Your task to perform on an android device: turn off smart reply in the gmail app Image 0: 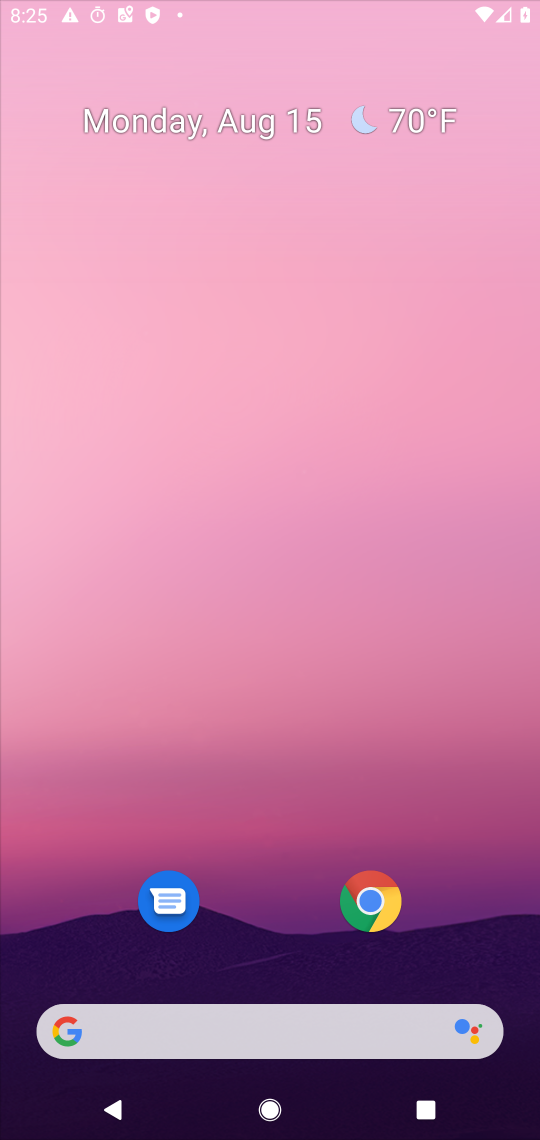
Step 0: click (255, 37)
Your task to perform on an android device: turn off smart reply in the gmail app Image 1: 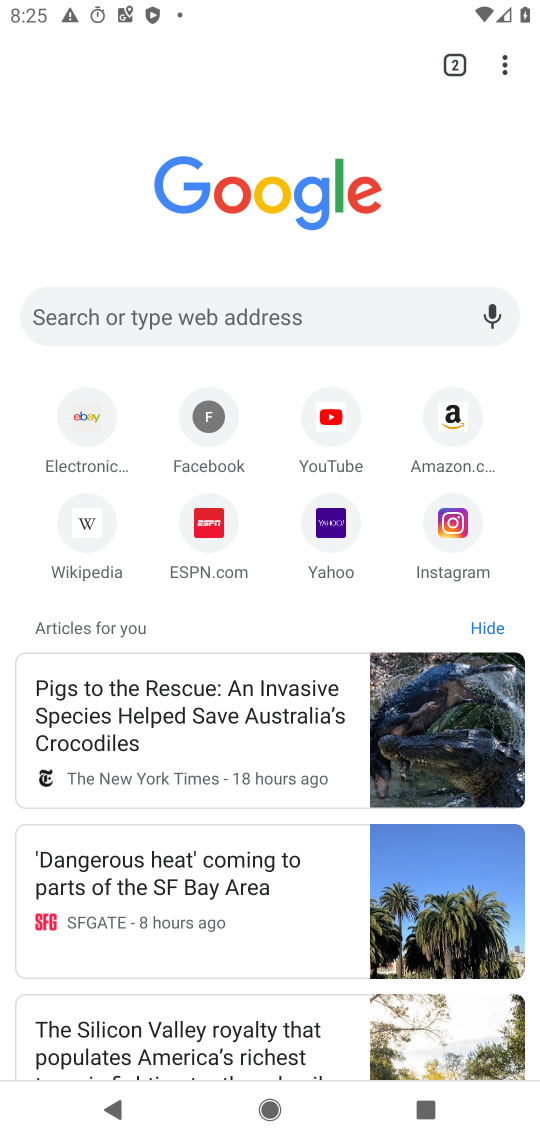
Step 1: press home button
Your task to perform on an android device: turn off smart reply in the gmail app Image 2: 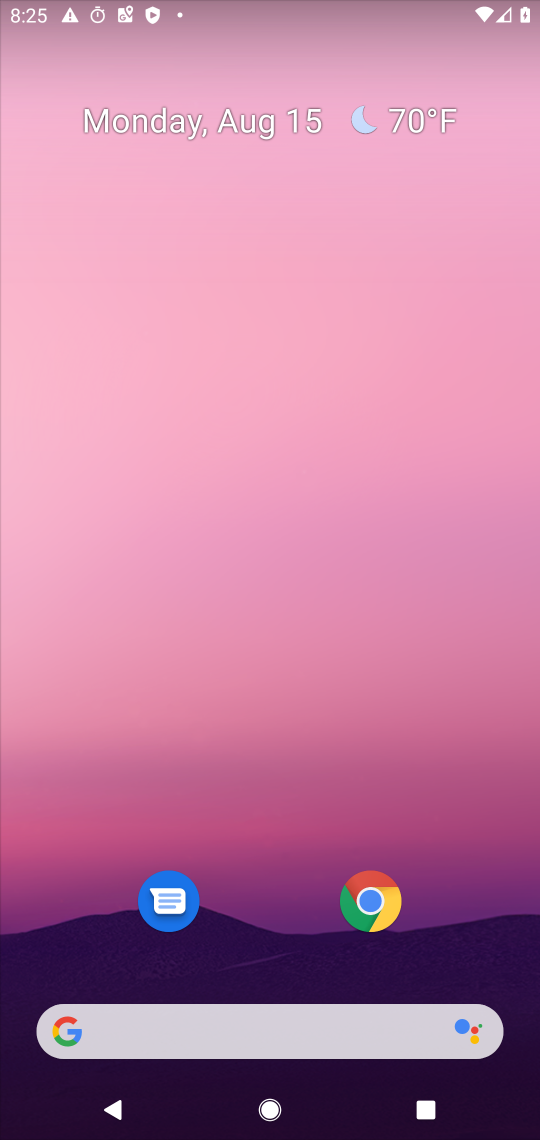
Step 2: drag from (244, 554) to (279, 92)
Your task to perform on an android device: turn off smart reply in the gmail app Image 3: 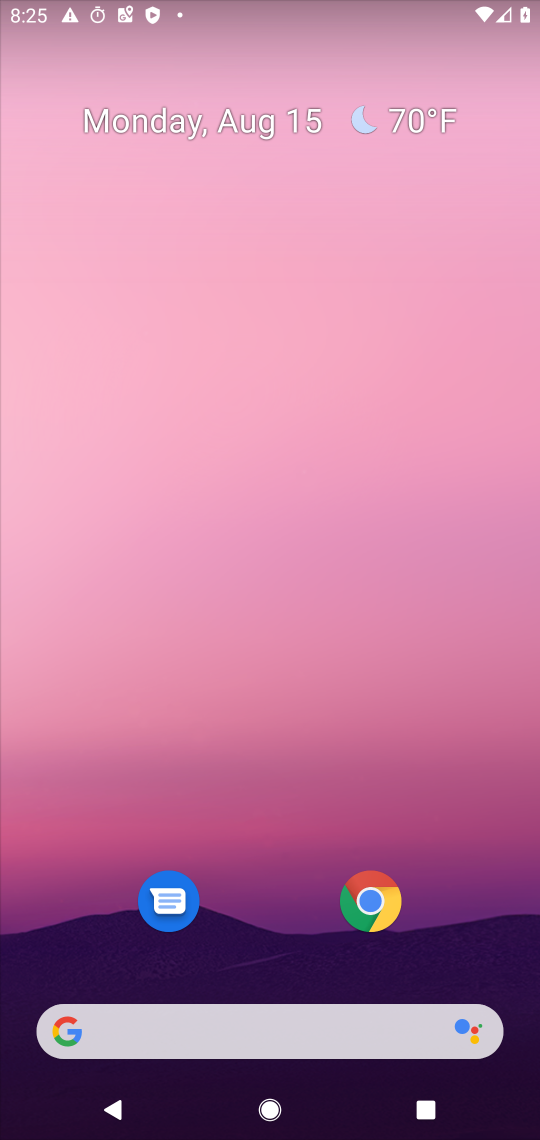
Step 3: drag from (256, 775) to (341, 58)
Your task to perform on an android device: turn off smart reply in the gmail app Image 4: 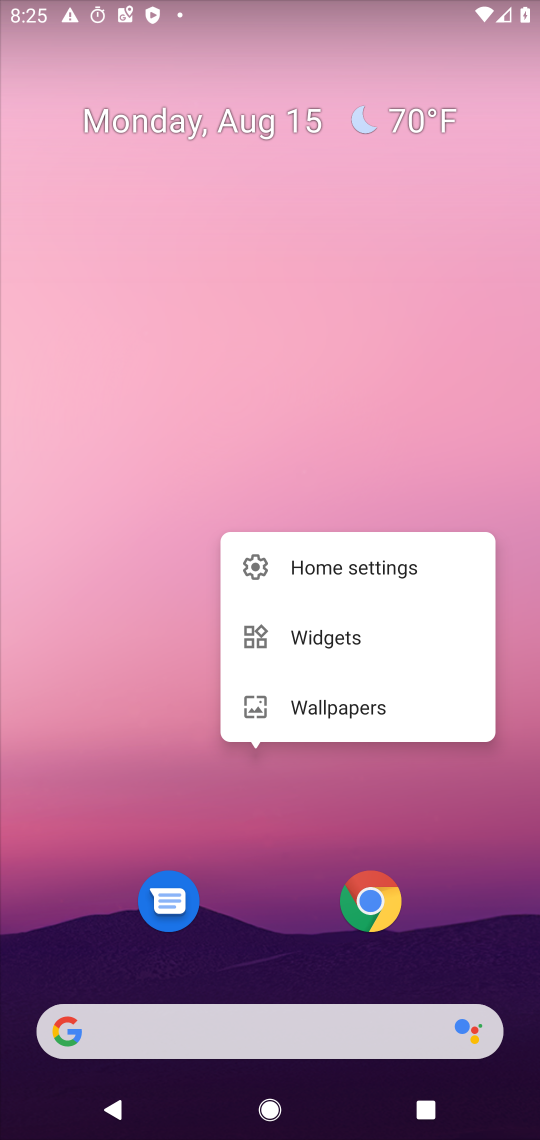
Step 4: click (261, 932)
Your task to perform on an android device: turn off smart reply in the gmail app Image 5: 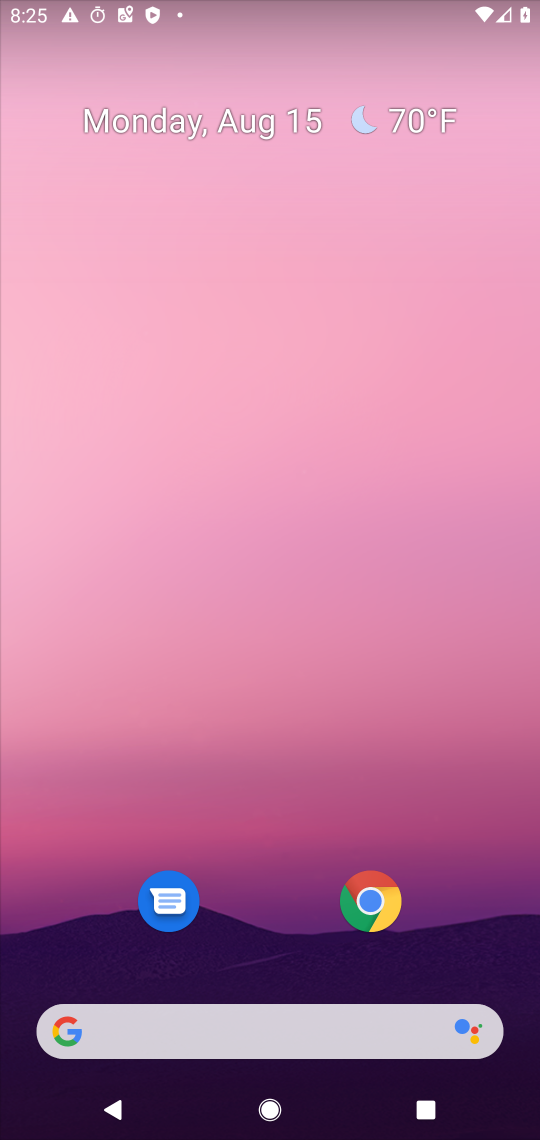
Step 5: drag from (222, 706) to (236, 257)
Your task to perform on an android device: turn off smart reply in the gmail app Image 6: 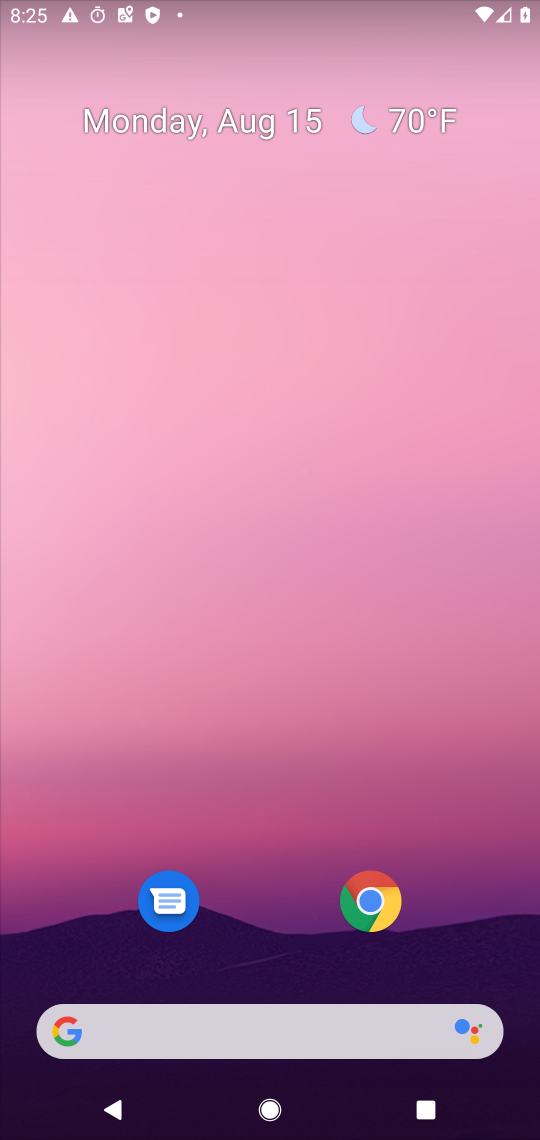
Step 6: drag from (290, 666) to (363, 89)
Your task to perform on an android device: turn off smart reply in the gmail app Image 7: 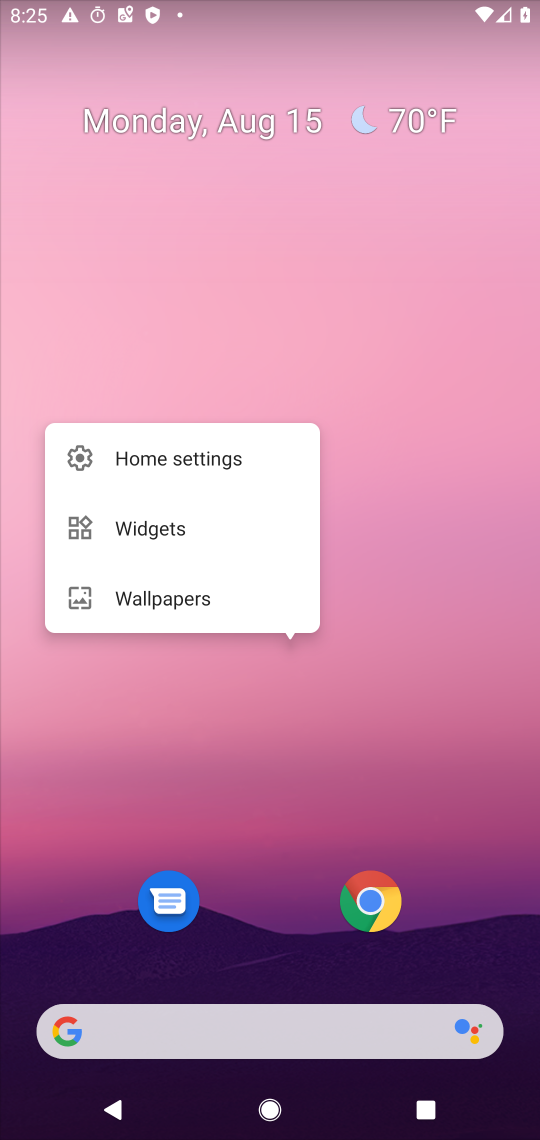
Step 7: click (271, 870)
Your task to perform on an android device: turn off smart reply in the gmail app Image 8: 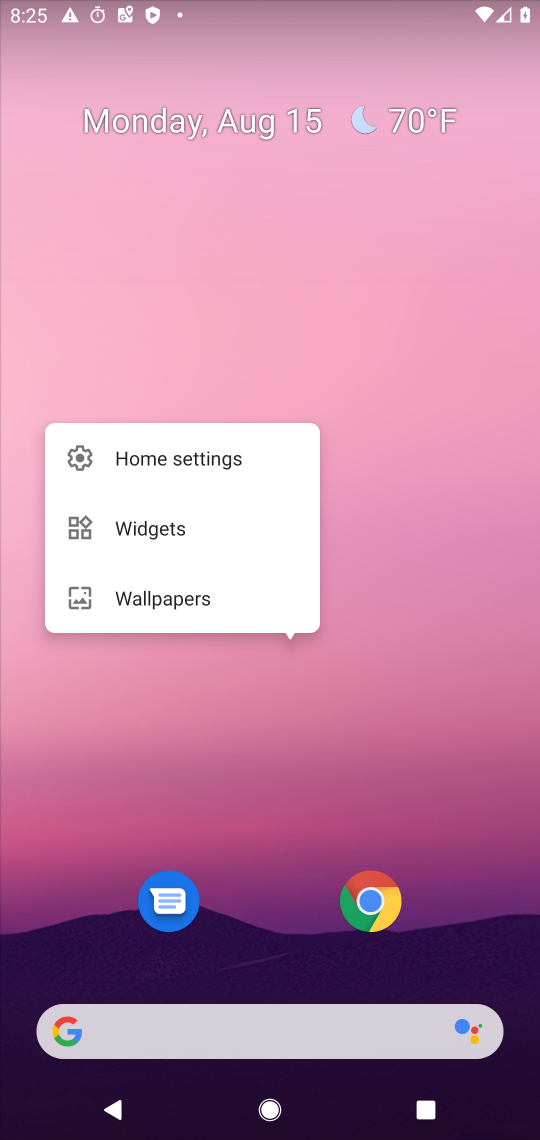
Step 8: drag from (275, 394) to (336, 97)
Your task to perform on an android device: turn off smart reply in the gmail app Image 9: 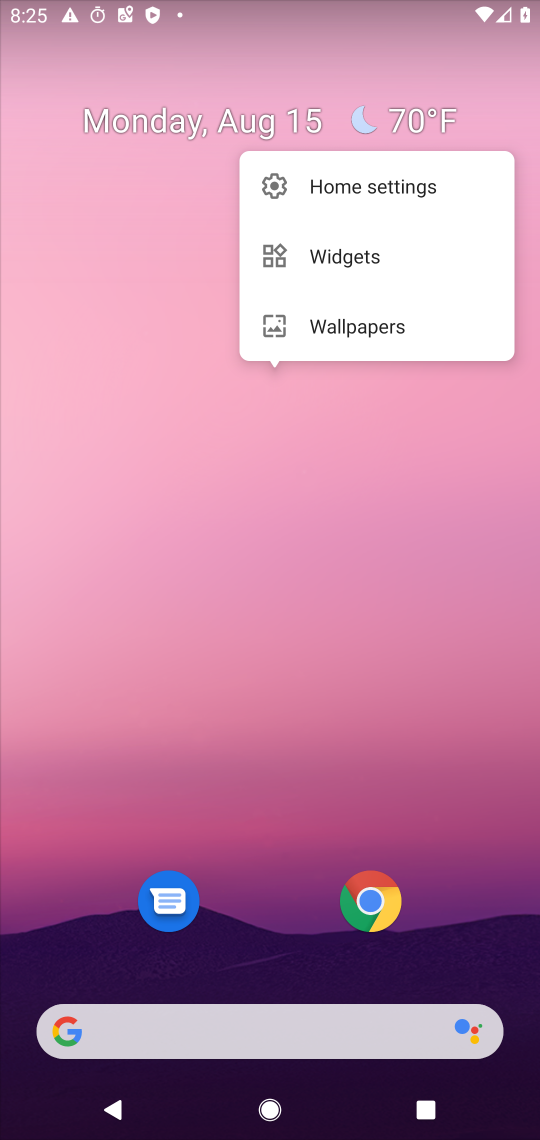
Step 9: click (284, 623)
Your task to perform on an android device: turn off smart reply in the gmail app Image 10: 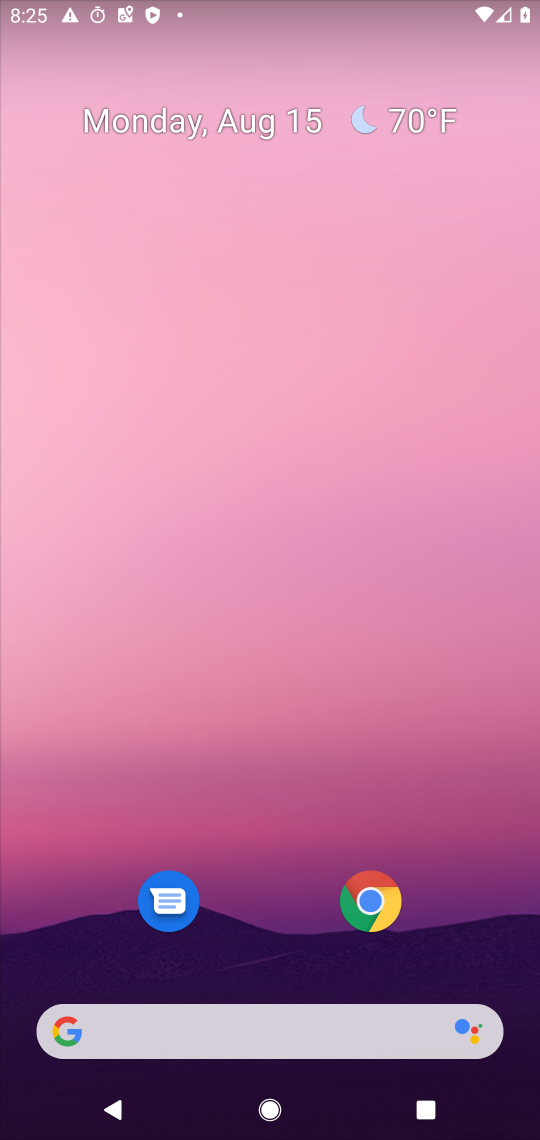
Step 10: drag from (262, 914) to (319, 41)
Your task to perform on an android device: turn off smart reply in the gmail app Image 11: 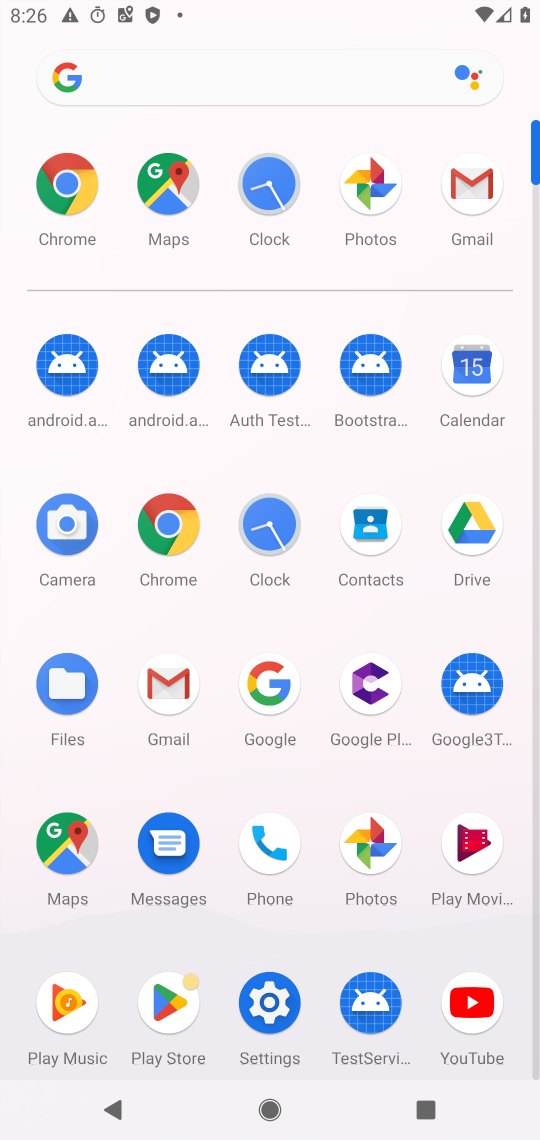
Step 11: click (165, 699)
Your task to perform on an android device: turn off smart reply in the gmail app Image 12: 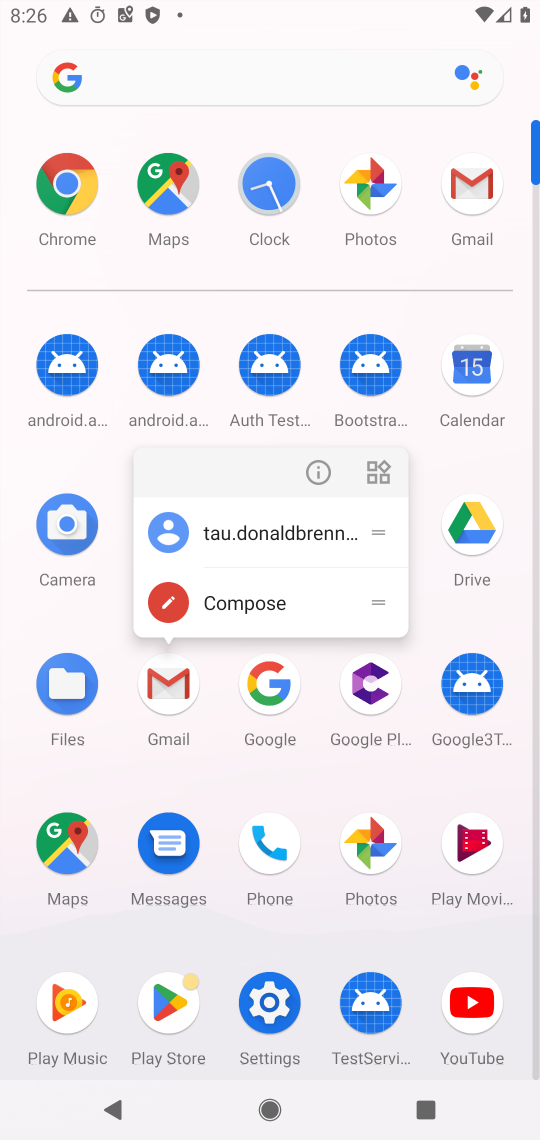
Step 12: click (170, 705)
Your task to perform on an android device: turn off smart reply in the gmail app Image 13: 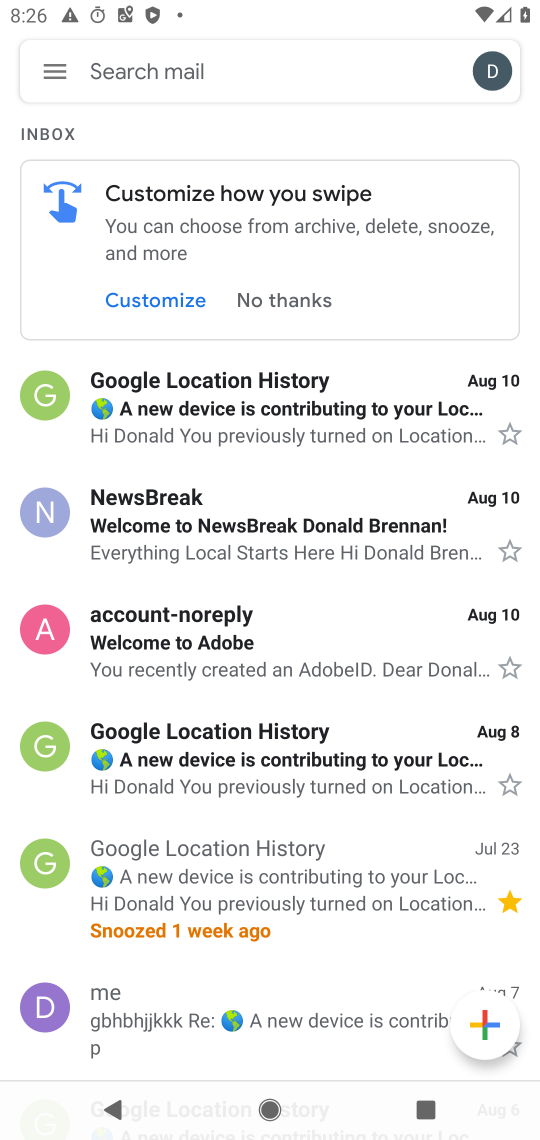
Step 13: click (44, 55)
Your task to perform on an android device: turn off smart reply in the gmail app Image 14: 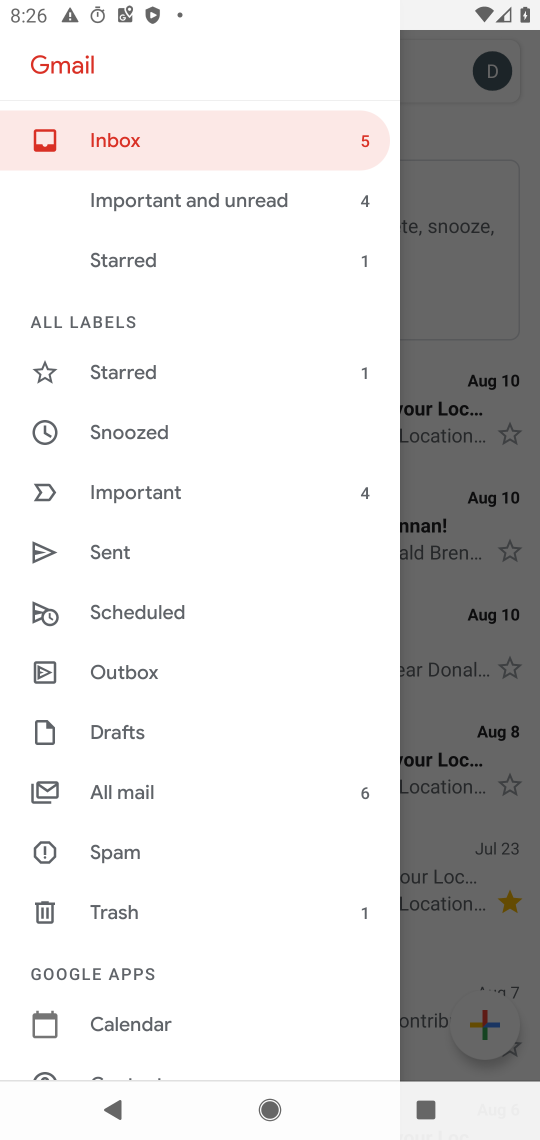
Step 14: drag from (173, 926) to (187, 371)
Your task to perform on an android device: turn off smart reply in the gmail app Image 15: 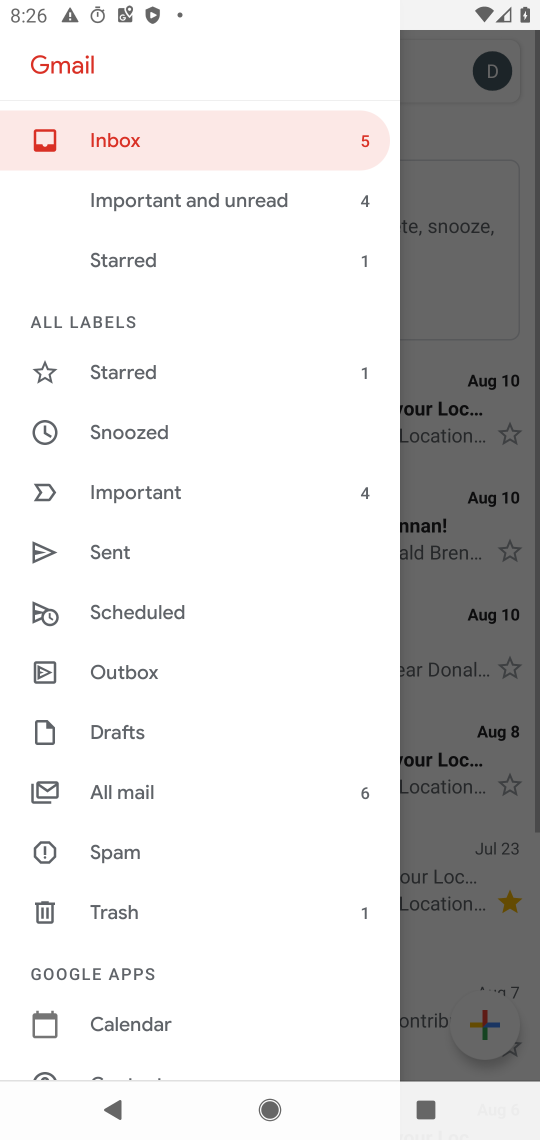
Step 15: drag from (169, 747) to (228, 167)
Your task to perform on an android device: turn off smart reply in the gmail app Image 16: 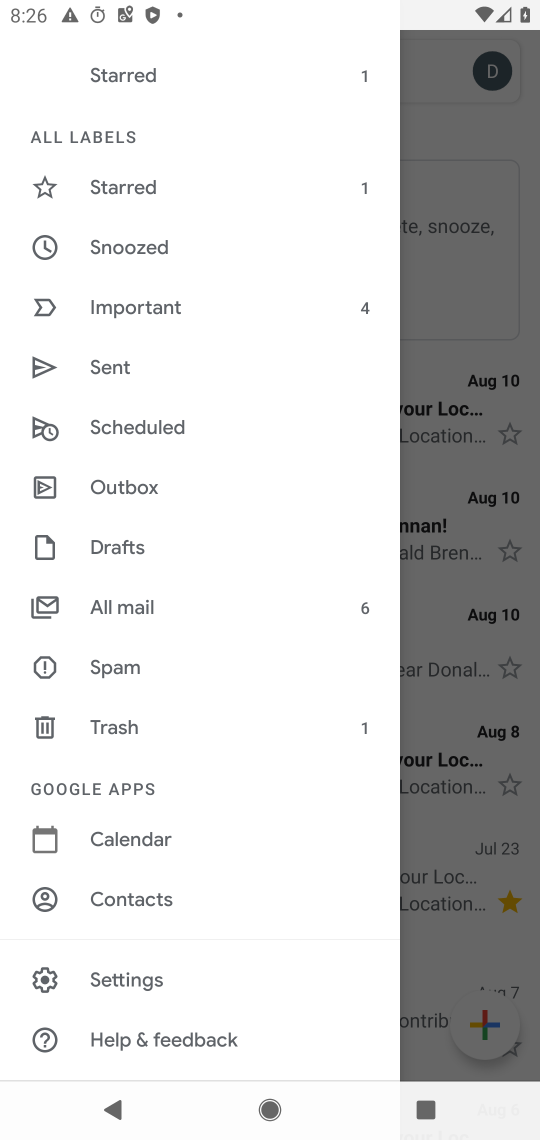
Step 16: click (138, 995)
Your task to perform on an android device: turn off smart reply in the gmail app Image 17: 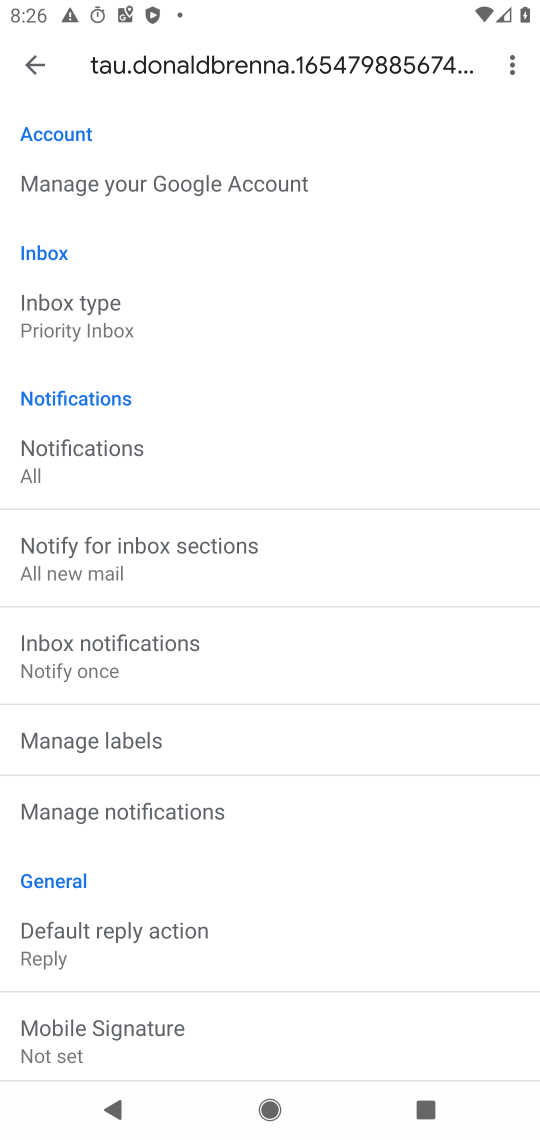
Step 17: drag from (226, 920) to (295, 366)
Your task to perform on an android device: turn off smart reply in the gmail app Image 18: 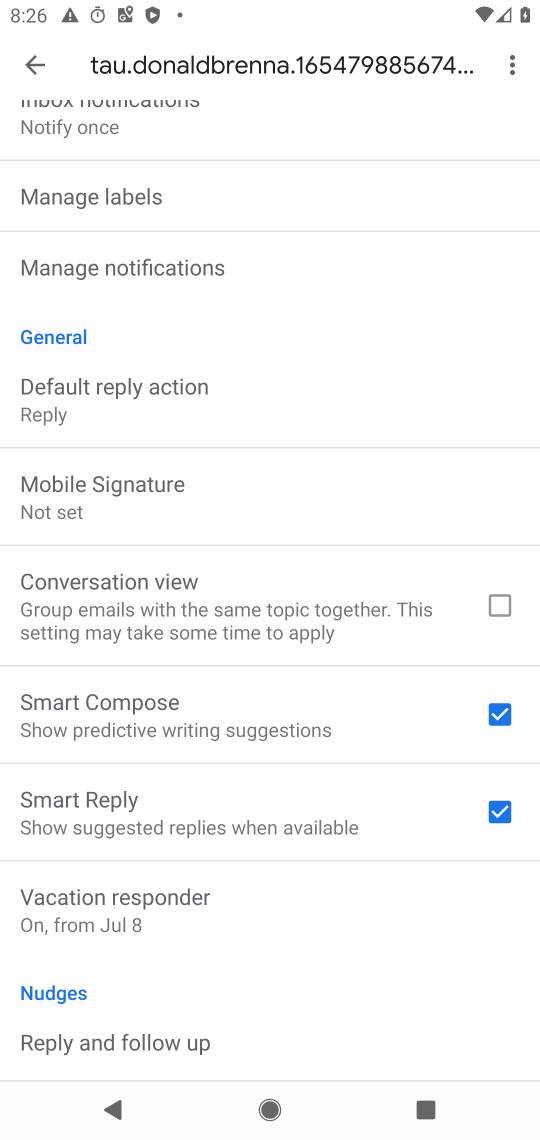
Step 18: click (485, 806)
Your task to perform on an android device: turn off smart reply in the gmail app Image 19: 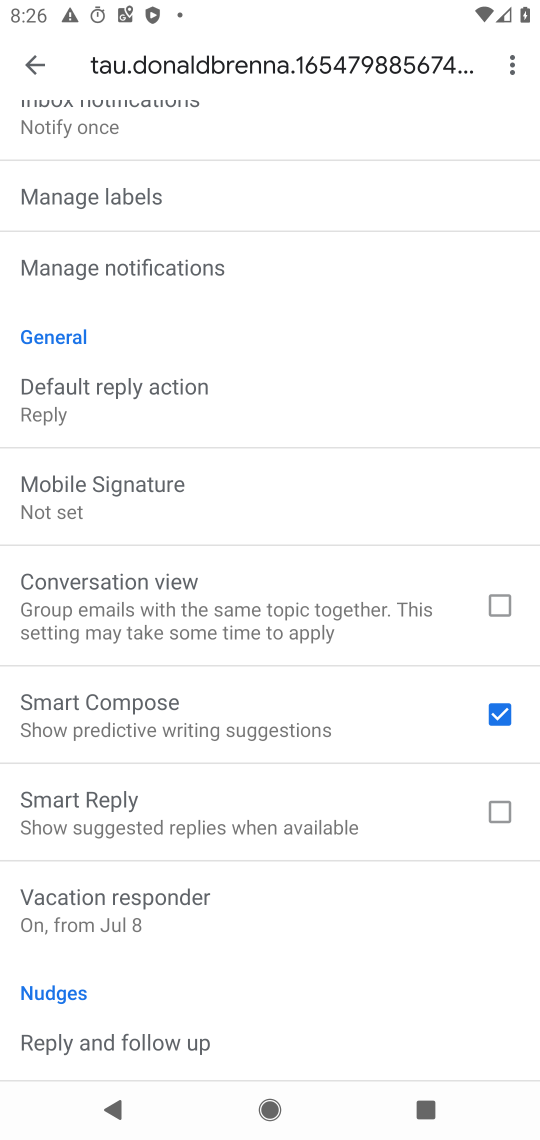
Step 19: task complete